Your task to perform on an android device: Search for Mexican restaurants on Maps Image 0: 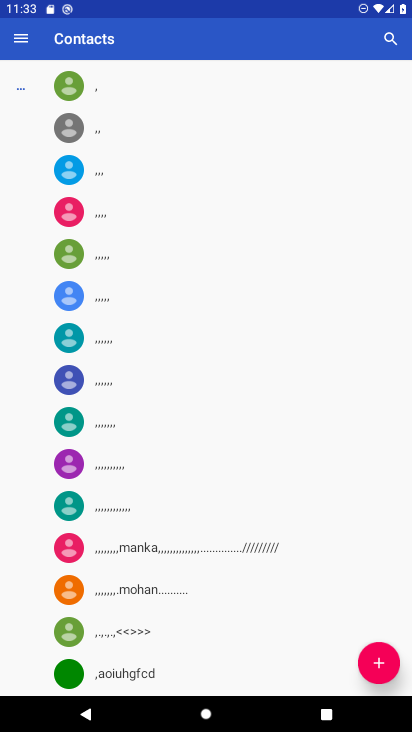
Step 0: press home button
Your task to perform on an android device: Search for Mexican restaurants on Maps Image 1: 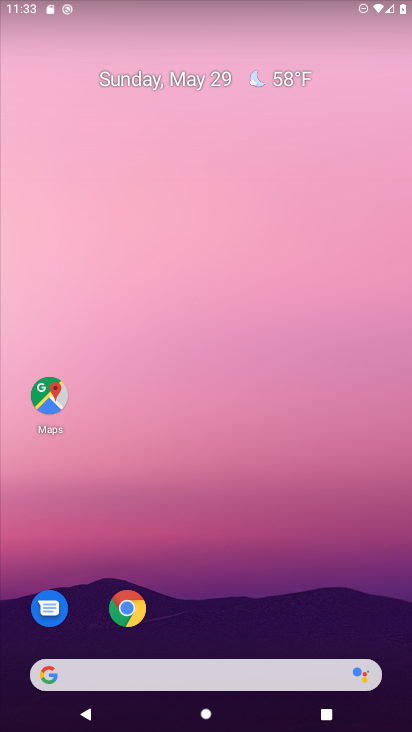
Step 1: click (52, 391)
Your task to perform on an android device: Search for Mexican restaurants on Maps Image 2: 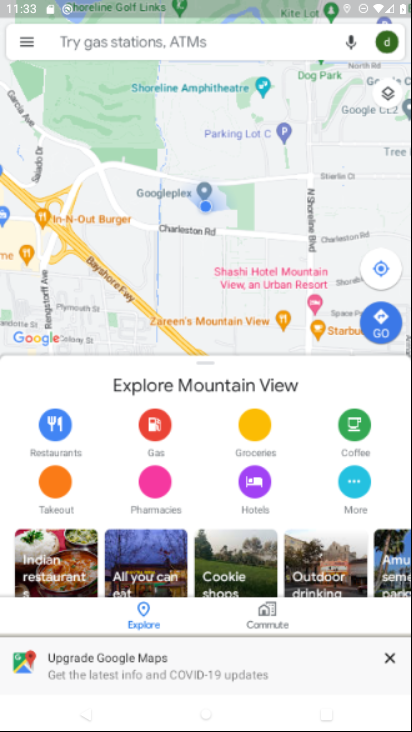
Step 2: click (244, 45)
Your task to perform on an android device: Search for Mexican restaurants on Maps Image 3: 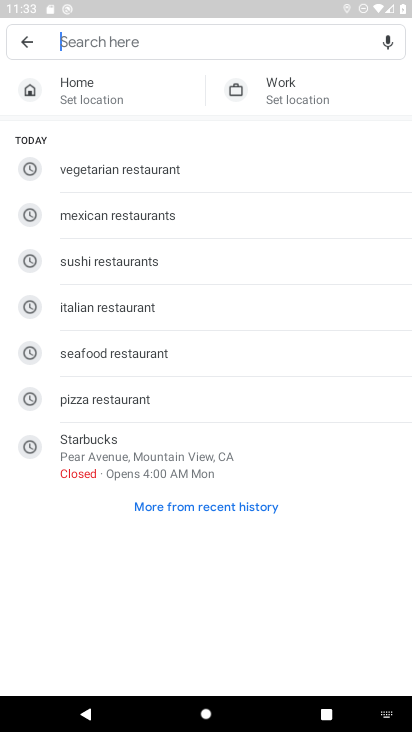
Step 3: click (186, 514)
Your task to perform on an android device: Search for Mexican restaurants on Maps Image 4: 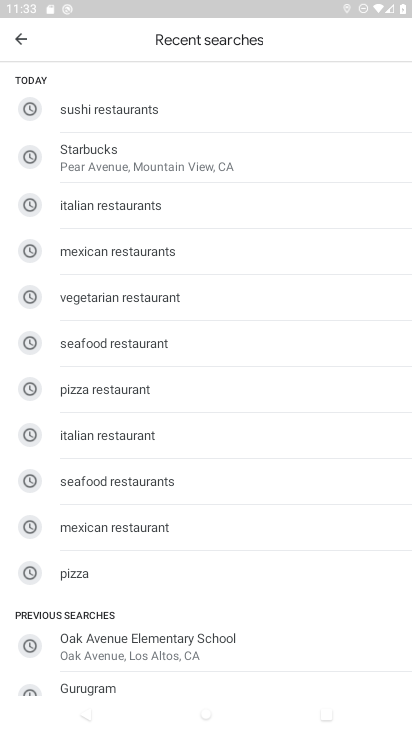
Step 4: click (95, 249)
Your task to perform on an android device: Search for Mexican restaurants on Maps Image 5: 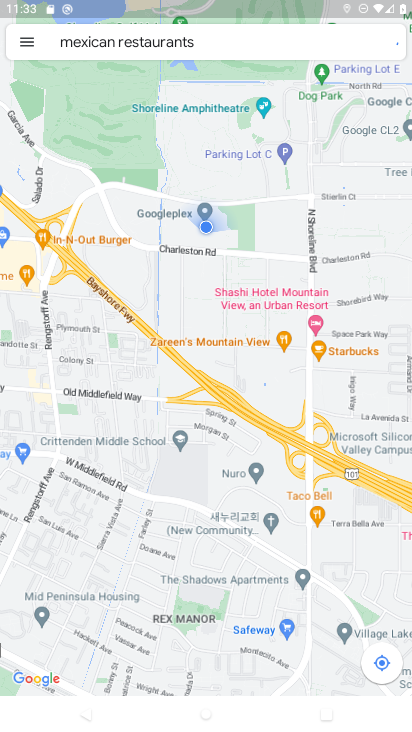
Step 5: task complete